Your task to perform on an android device: Empty the shopping cart on target. Add "asus rog" to the cart on target Image 0: 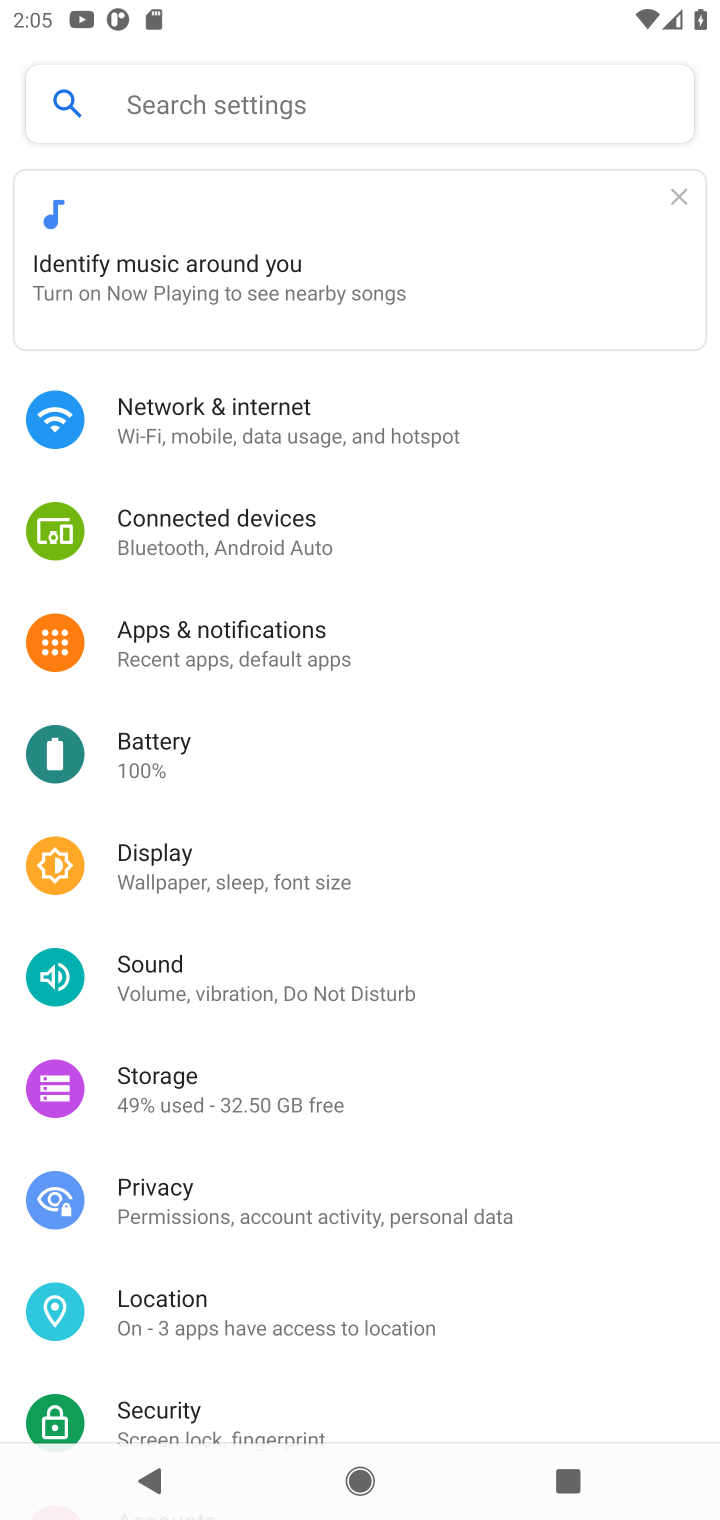
Step 0: press home button
Your task to perform on an android device: Empty the shopping cart on target. Add "asus rog" to the cart on target Image 1: 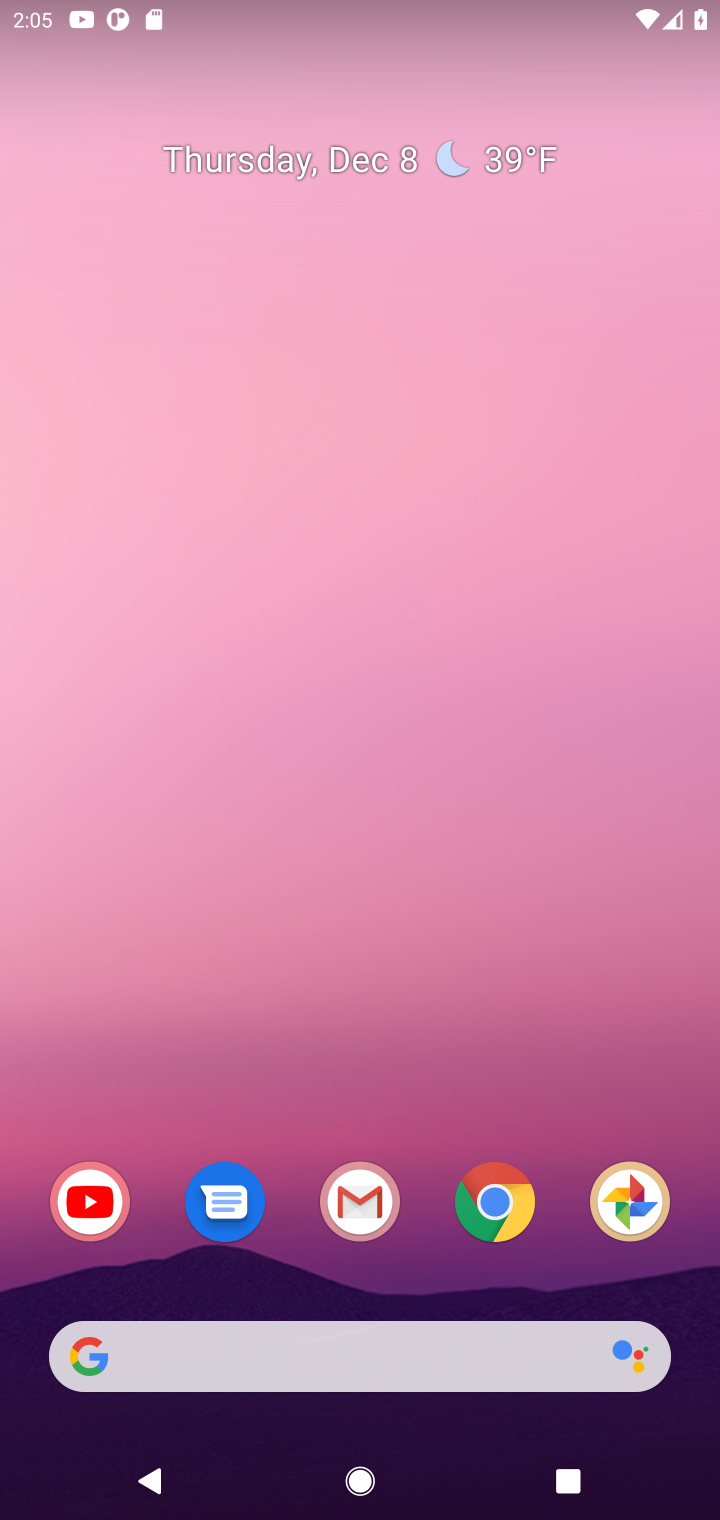
Step 1: click (505, 1189)
Your task to perform on an android device: Empty the shopping cart on target. Add "asus rog" to the cart on target Image 2: 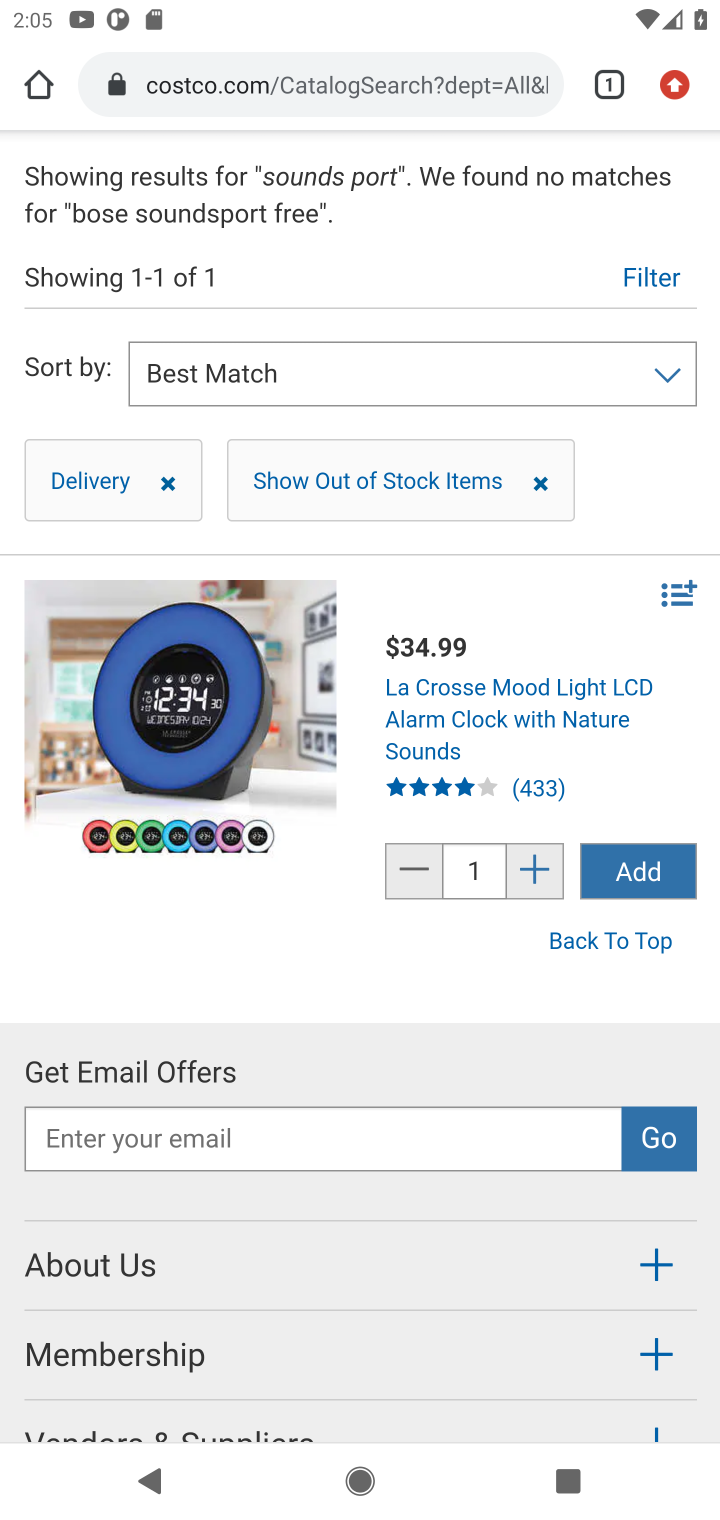
Step 2: click (386, 76)
Your task to perform on an android device: Empty the shopping cart on target. Add "asus rog" to the cart on target Image 3: 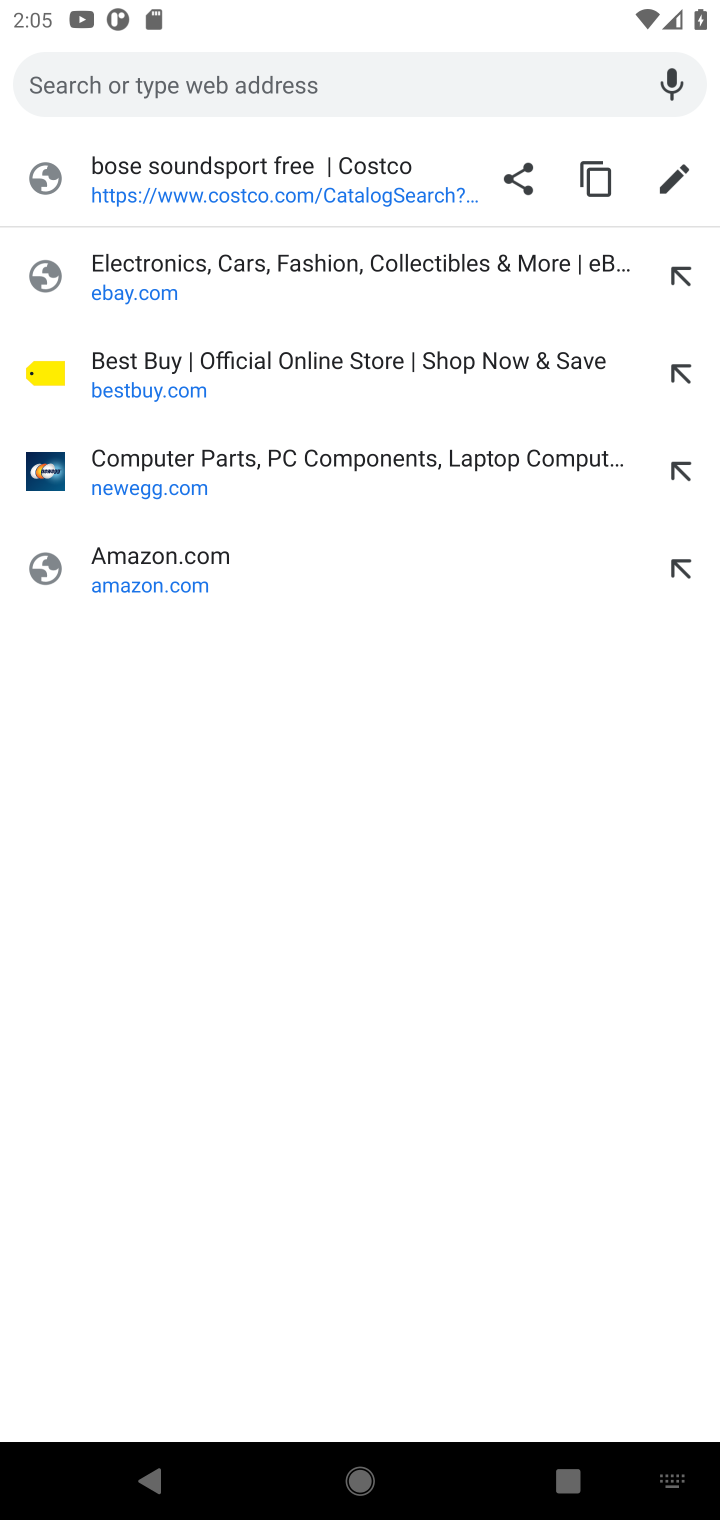
Step 3: press enter
Your task to perform on an android device: Empty the shopping cart on target. Add "asus rog" to the cart on target Image 4: 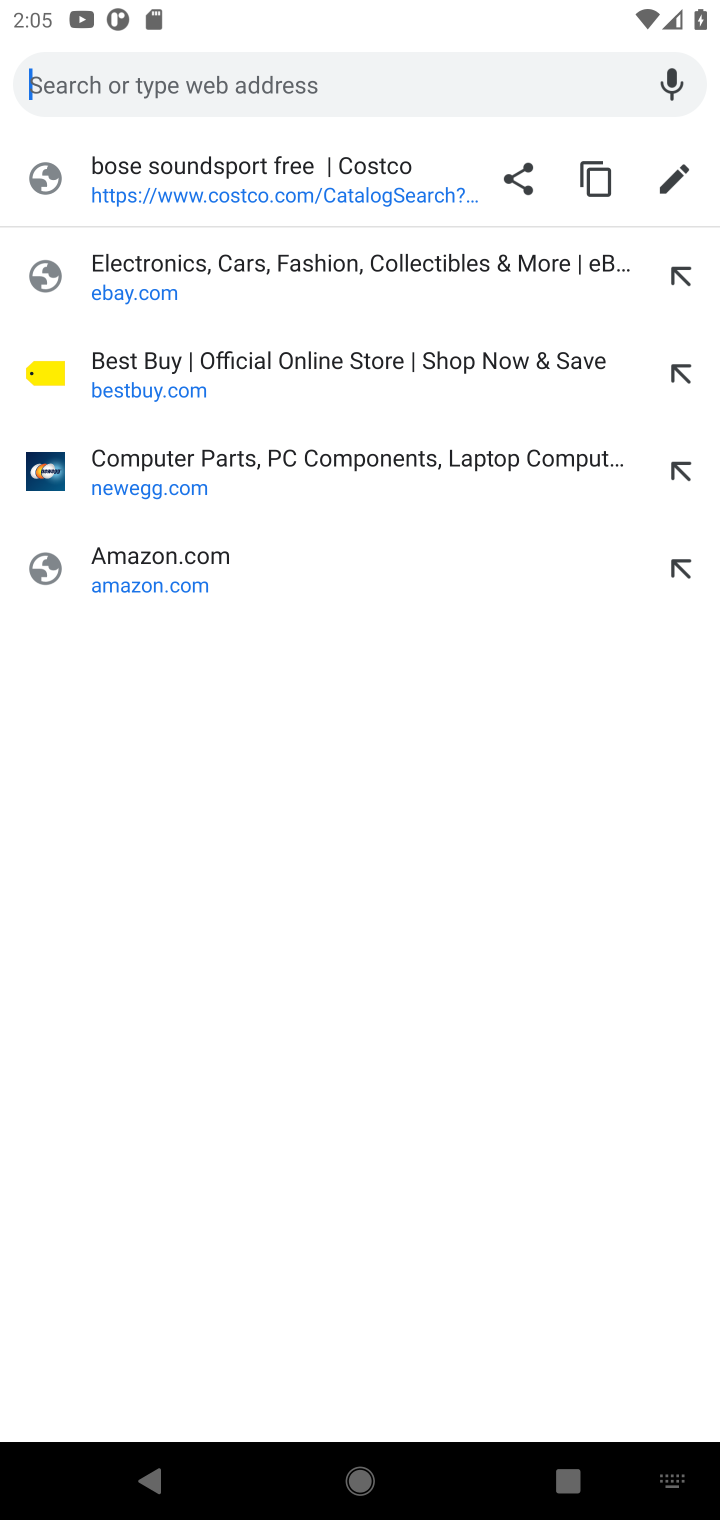
Step 4: type "target"
Your task to perform on an android device: Empty the shopping cart on target. Add "asus rog" to the cart on target Image 5: 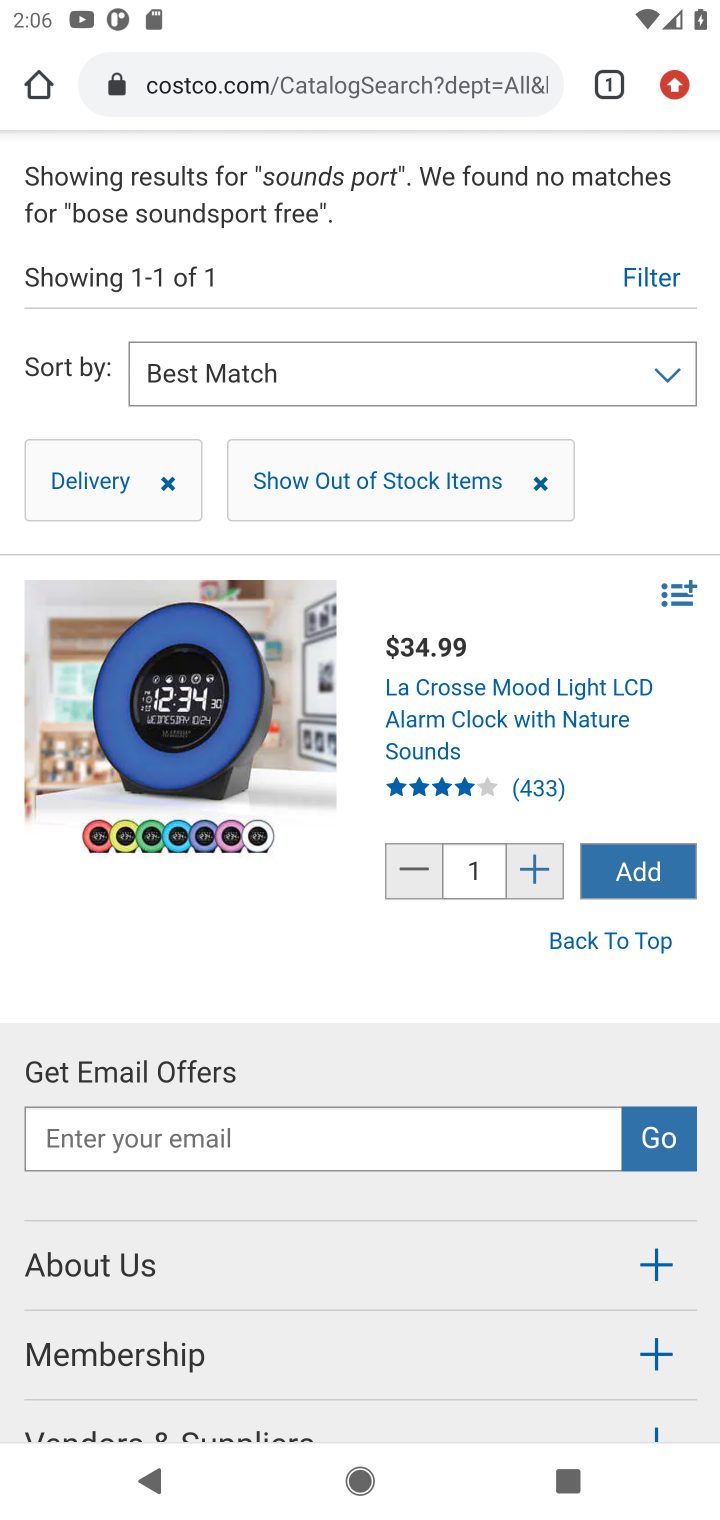
Step 5: click (241, 82)
Your task to perform on an android device: Empty the shopping cart on target. Add "asus rog" to the cart on target Image 6: 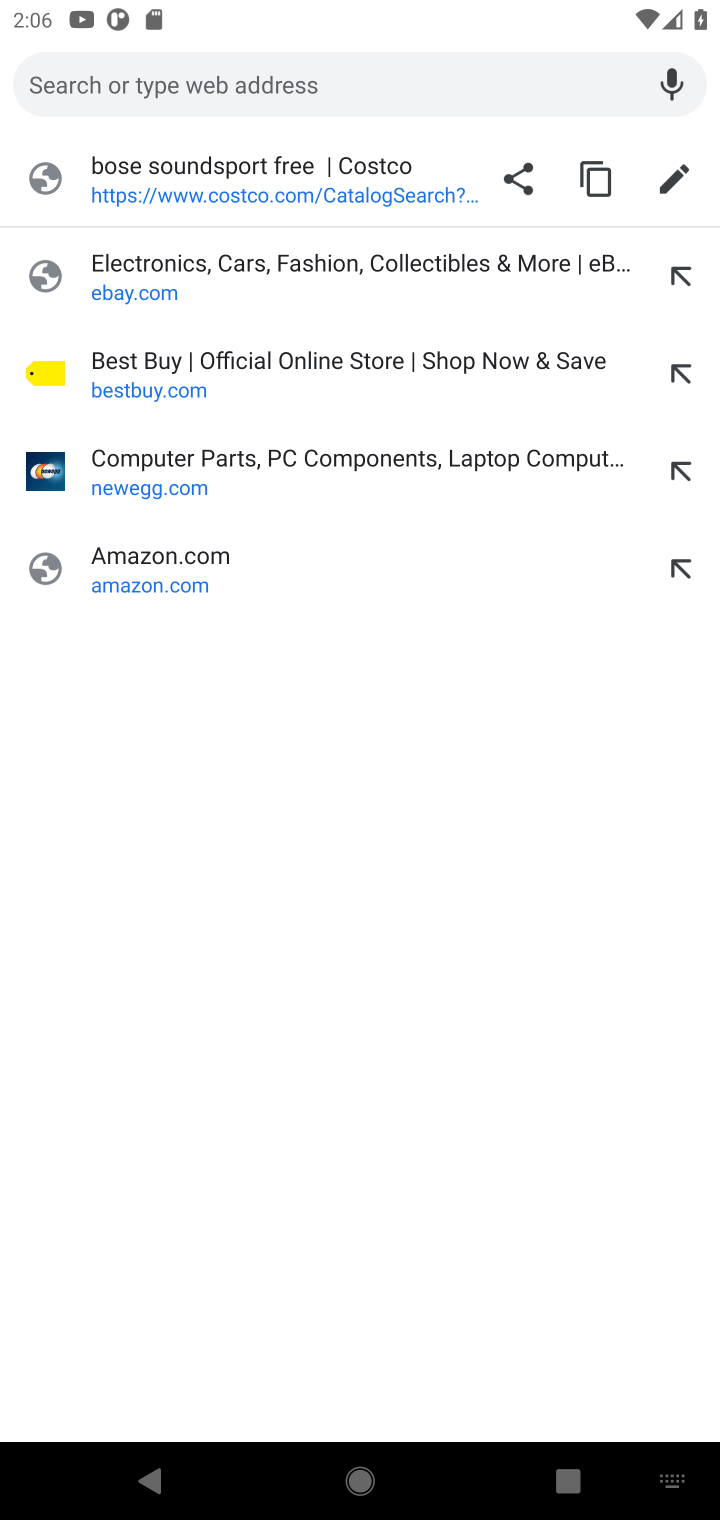
Step 6: type "target"
Your task to perform on an android device: Empty the shopping cart on target. Add "asus rog" to the cart on target Image 7: 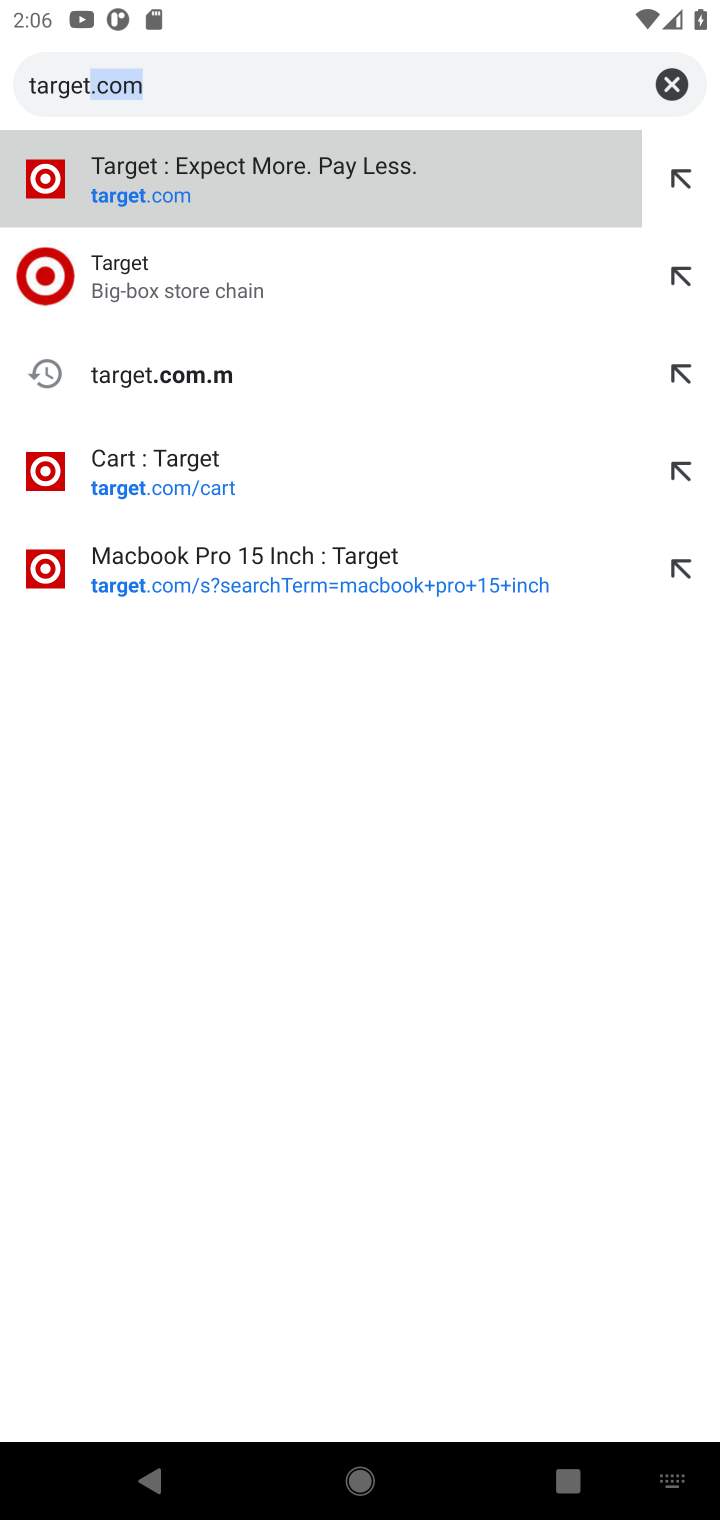
Step 7: press enter
Your task to perform on an android device: Empty the shopping cart on target. Add "asus rog" to the cart on target Image 8: 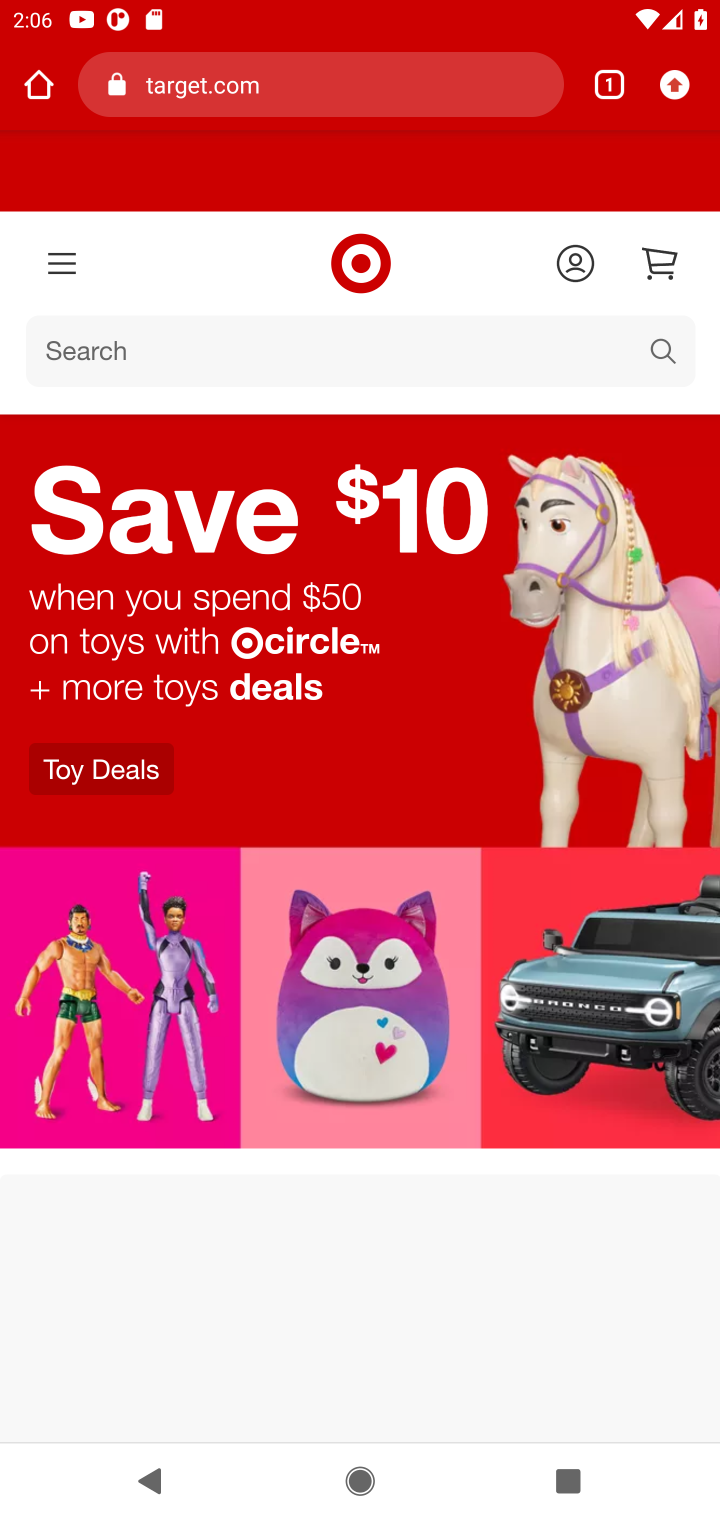
Step 8: click (661, 263)
Your task to perform on an android device: Empty the shopping cart on target. Add "asus rog" to the cart on target Image 9: 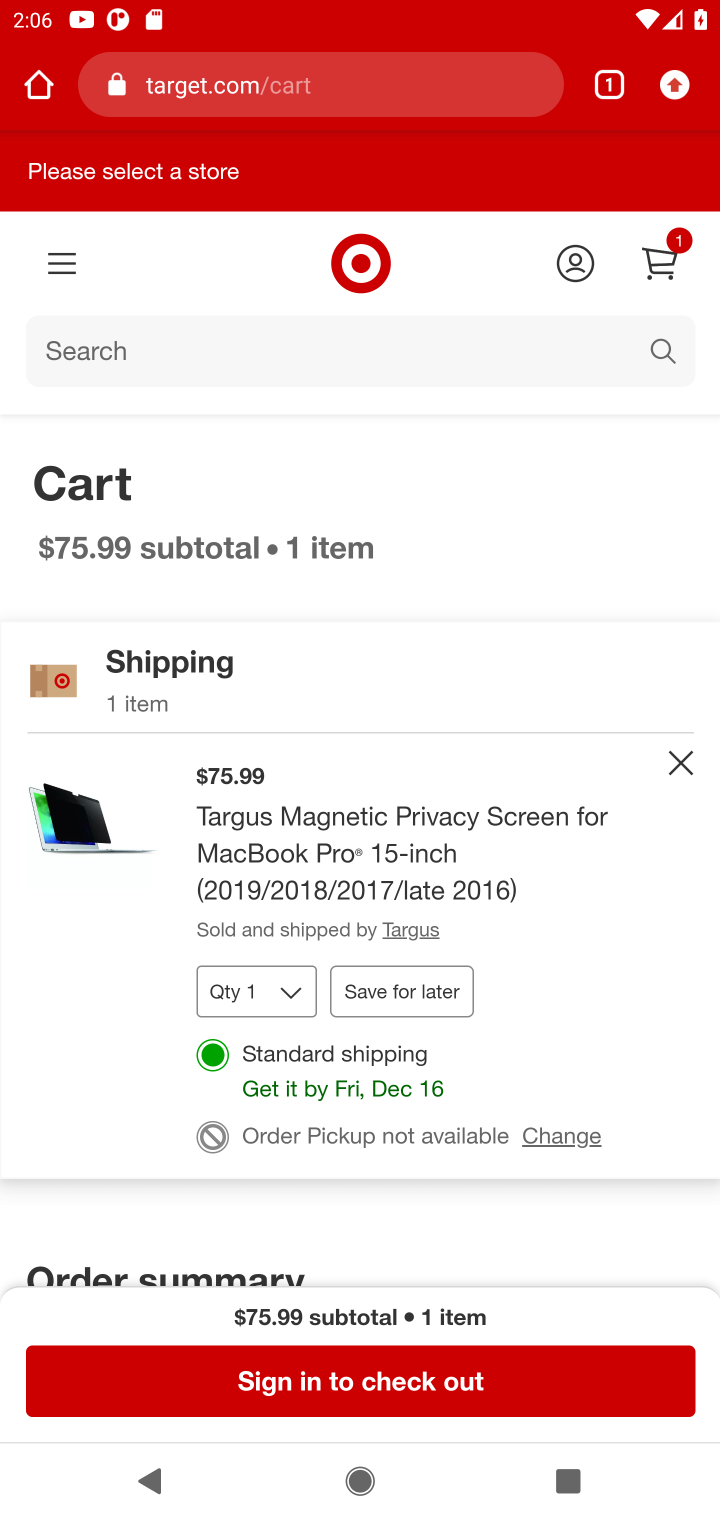
Step 9: click (675, 762)
Your task to perform on an android device: Empty the shopping cart on target. Add "asus rog" to the cart on target Image 10: 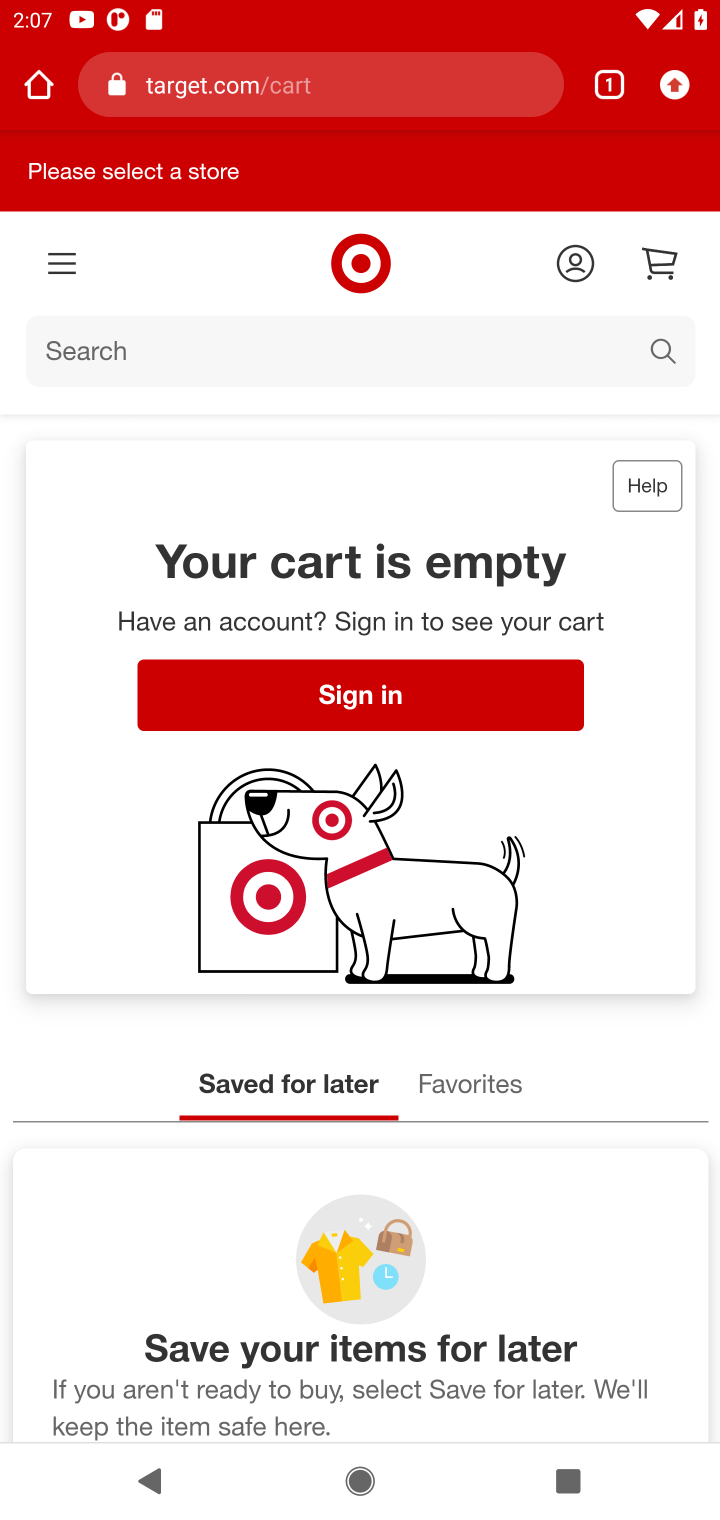
Step 10: click (663, 344)
Your task to perform on an android device: Empty the shopping cart on target. Add "asus rog" to the cart on target Image 11: 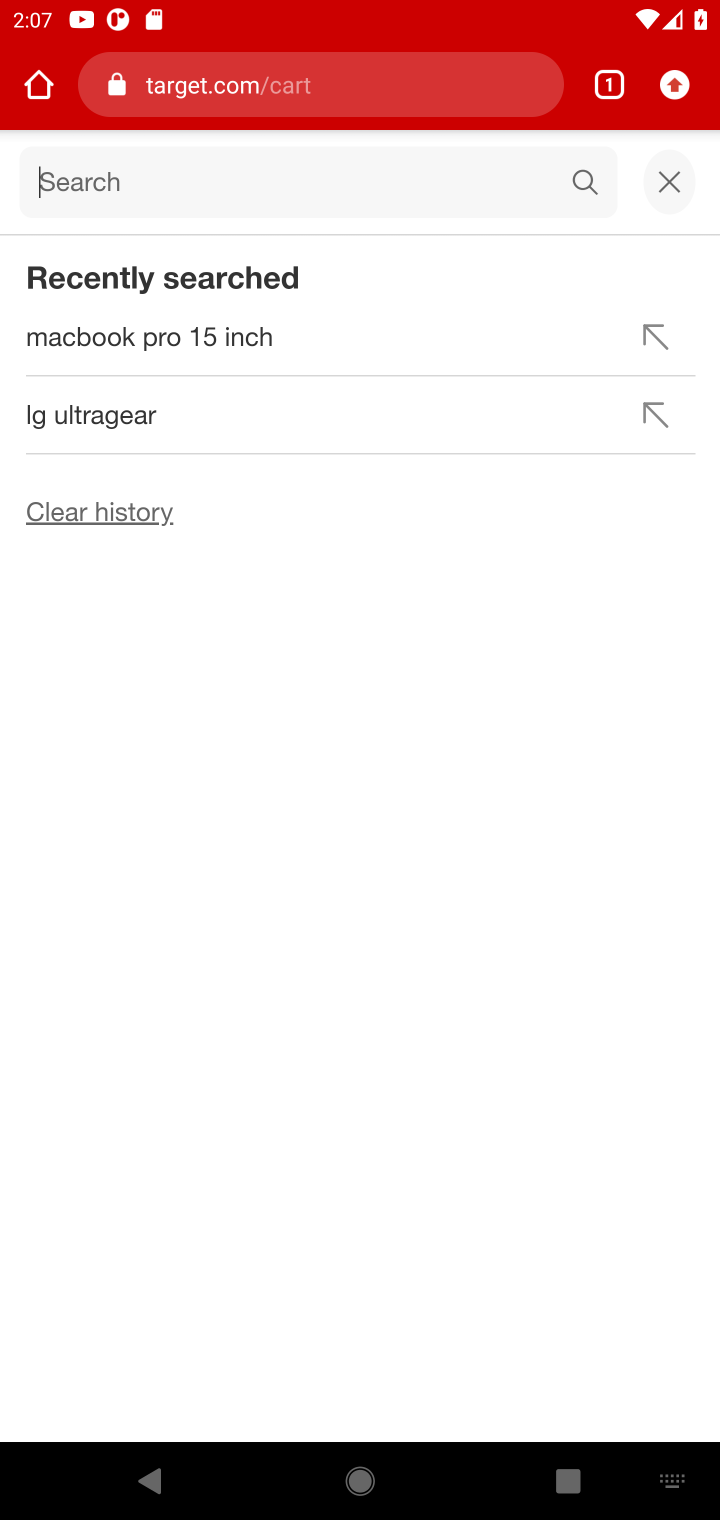
Step 11: type "asus rog"
Your task to perform on an android device: Empty the shopping cart on target. Add "asus rog" to the cart on target Image 12: 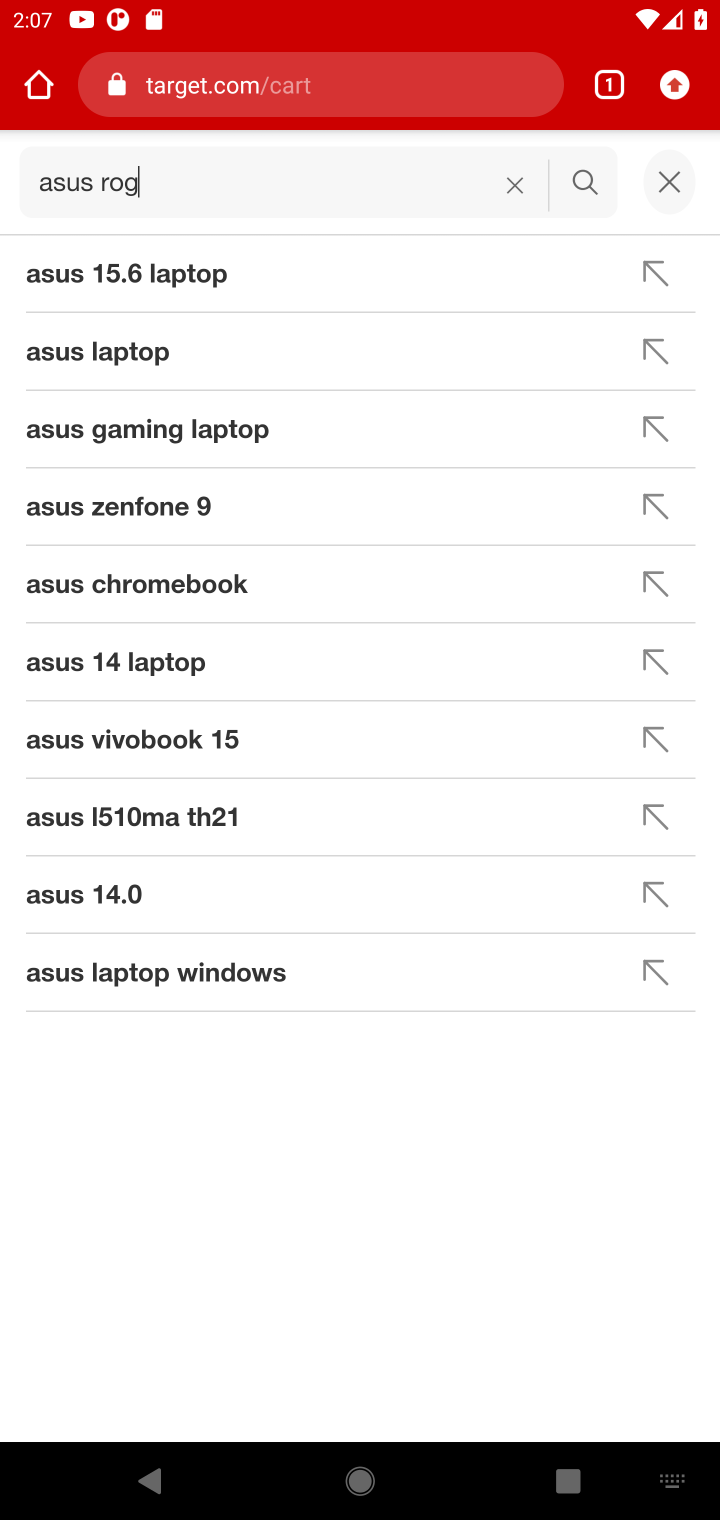
Step 12: press enter
Your task to perform on an android device: Empty the shopping cart on target. Add "asus rog" to the cart on target Image 13: 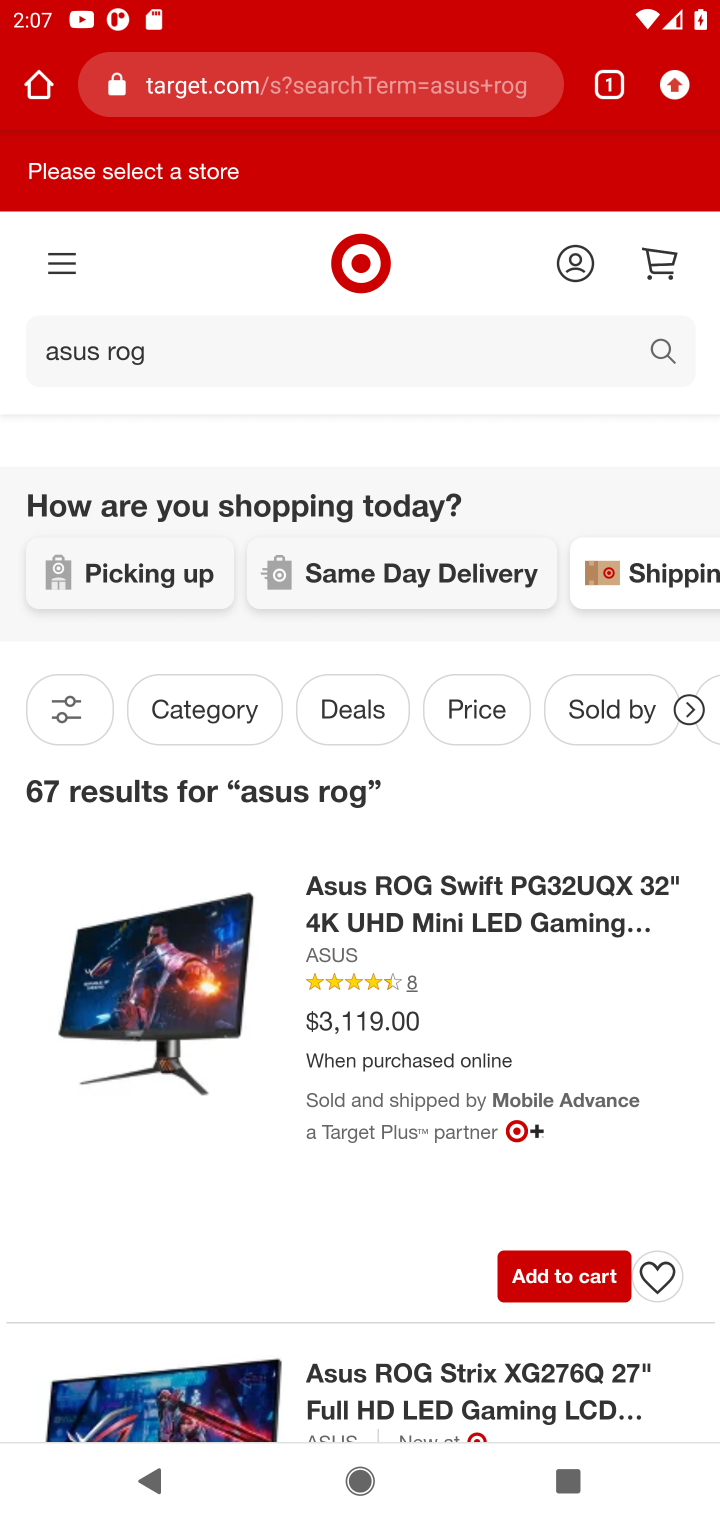
Step 13: click (145, 985)
Your task to perform on an android device: Empty the shopping cart on target. Add "asus rog" to the cart on target Image 14: 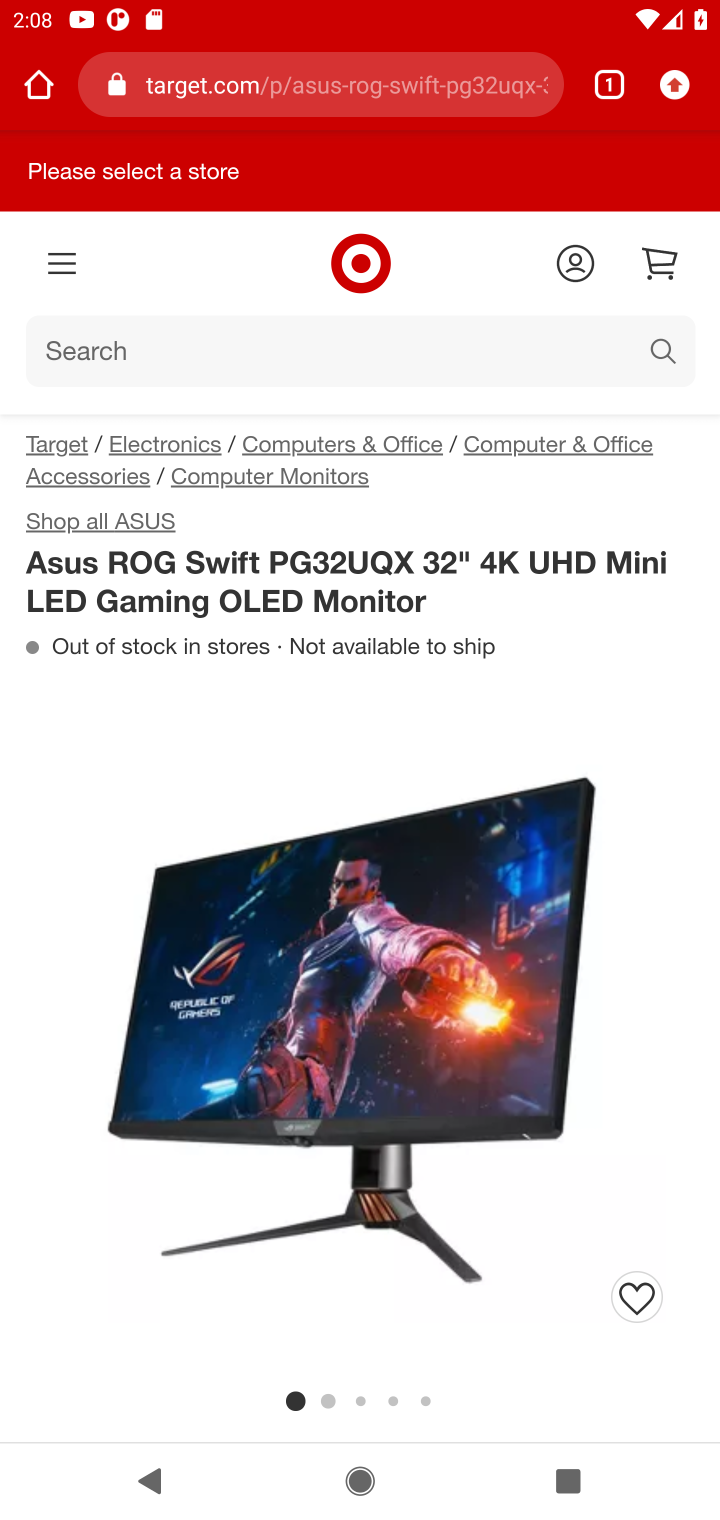
Step 14: drag from (363, 694) to (386, 485)
Your task to perform on an android device: Empty the shopping cart on target. Add "asus rog" to the cart on target Image 15: 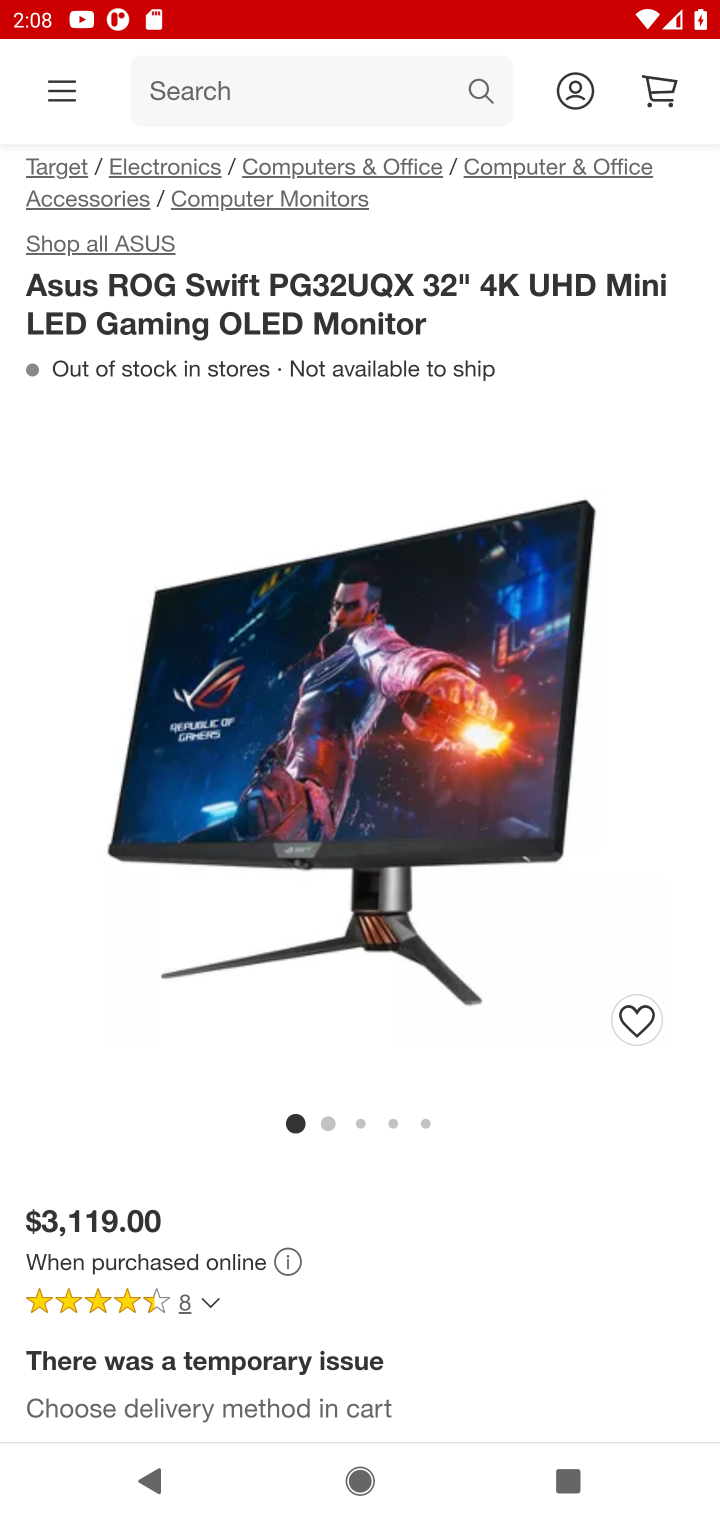
Step 15: drag from (564, 1238) to (507, 441)
Your task to perform on an android device: Empty the shopping cart on target. Add "asus rog" to the cart on target Image 16: 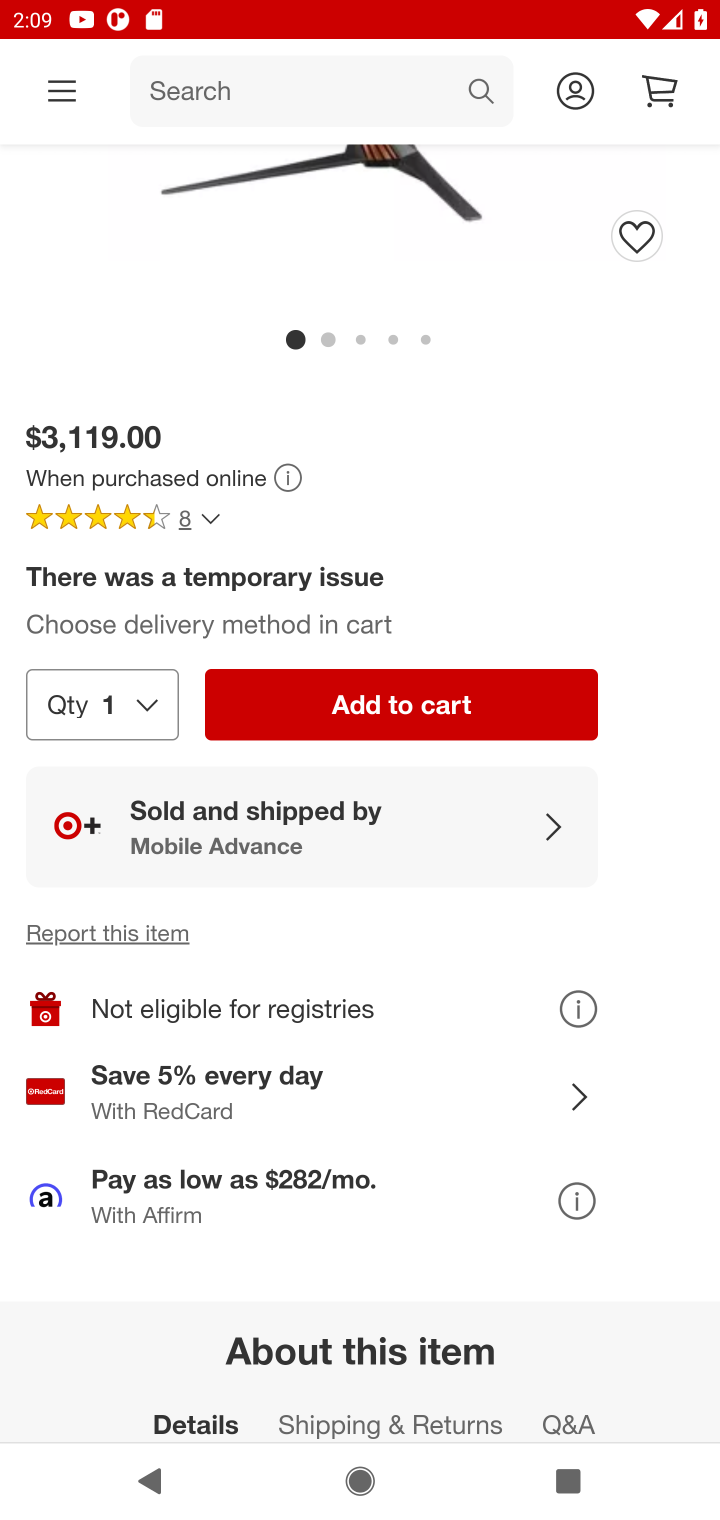
Step 16: click (451, 694)
Your task to perform on an android device: Empty the shopping cart on target. Add "asus rog" to the cart on target Image 17: 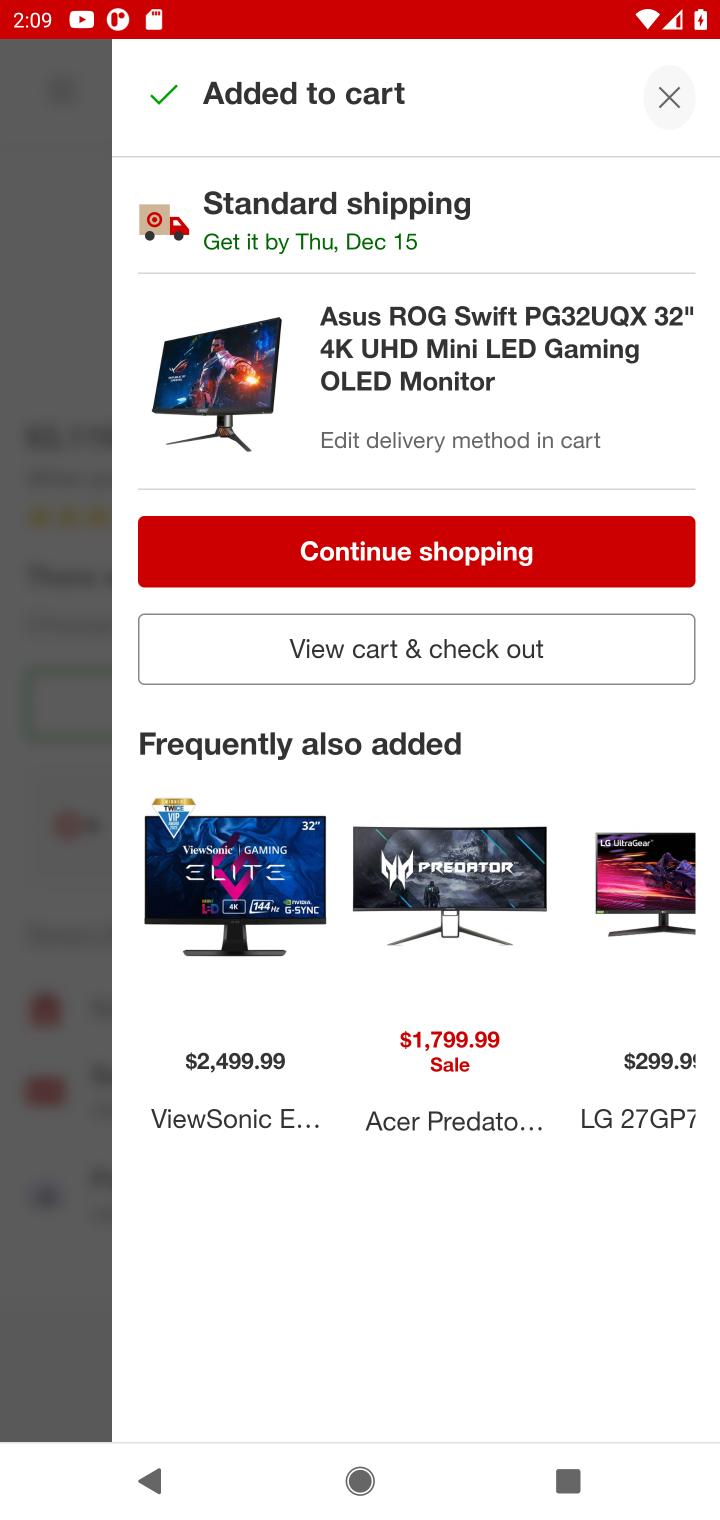
Step 17: task complete